Your task to perform on an android device: change notifications settings Image 0: 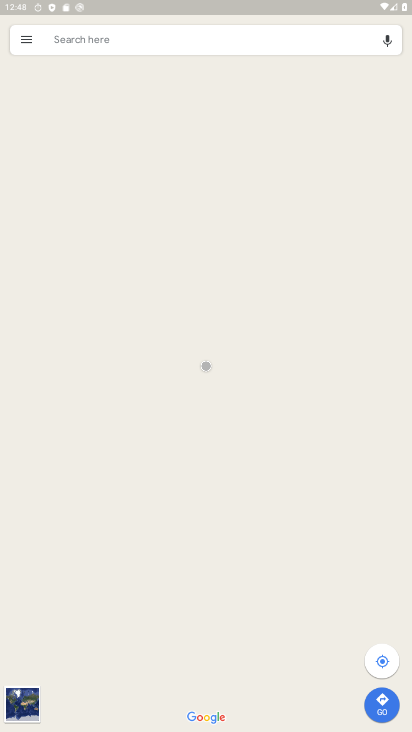
Step 0: press home button
Your task to perform on an android device: change notifications settings Image 1: 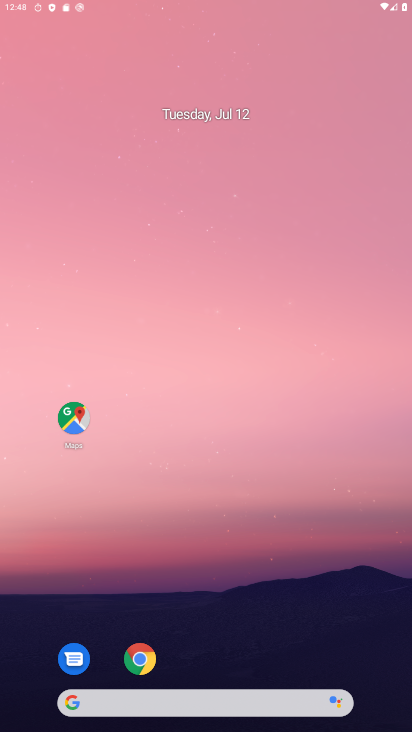
Step 1: drag from (264, 614) to (212, 138)
Your task to perform on an android device: change notifications settings Image 2: 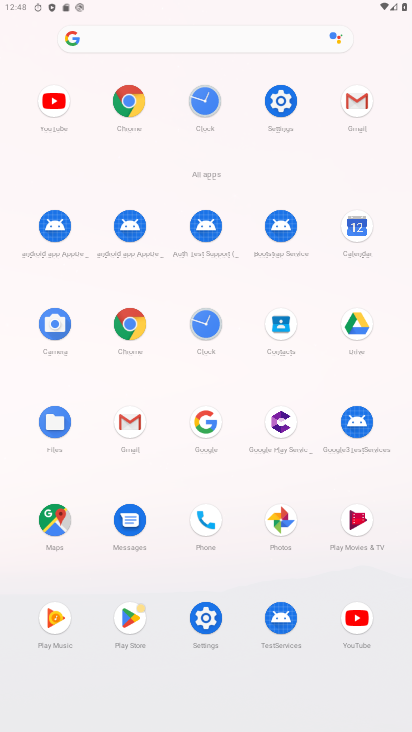
Step 2: click (287, 101)
Your task to perform on an android device: change notifications settings Image 3: 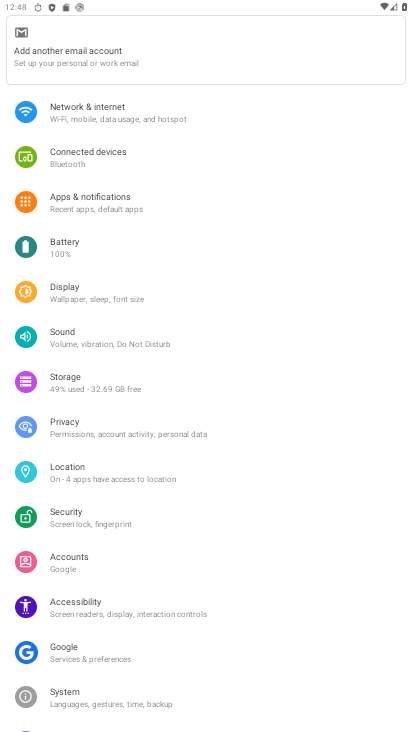
Step 3: click (98, 209)
Your task to perform on an android device: change notifications settings Image 4: 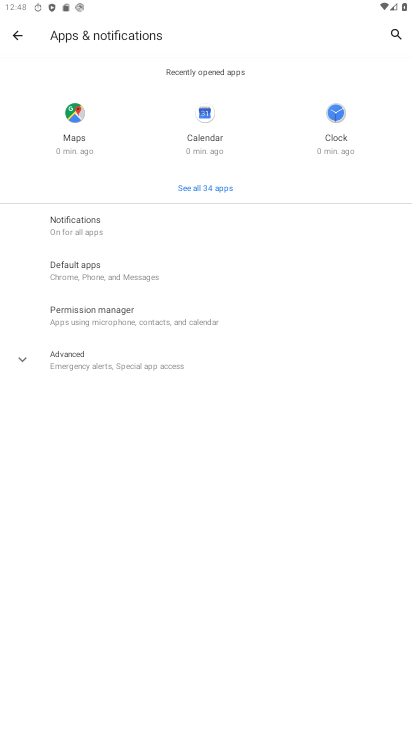
Step 4: click (86, 214)
Your task to perform on an android device: change notifications settings Image 5: 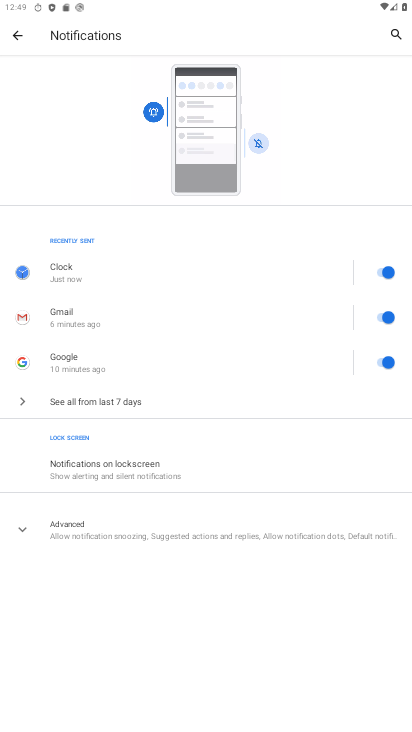
Step 5: task complete